Your task to perform on an android device: open device folders in google photos Image 0: 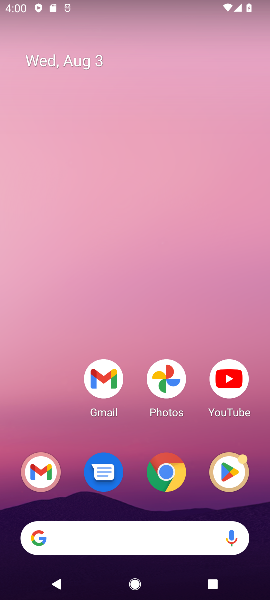
Step 0: drag from (38, 388) to (101, 10)
Your task to perform on an android device: open device folders in google photos Image 1: 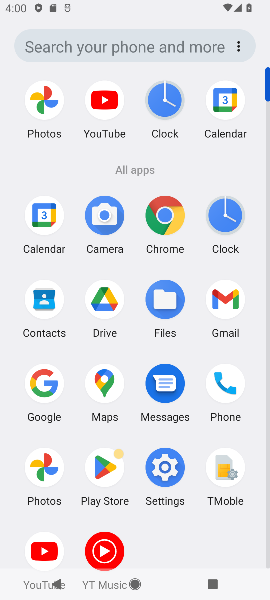
Step 1: click (35, 467)
Your task to perform on an android device: open device folders in google photos Image 2: 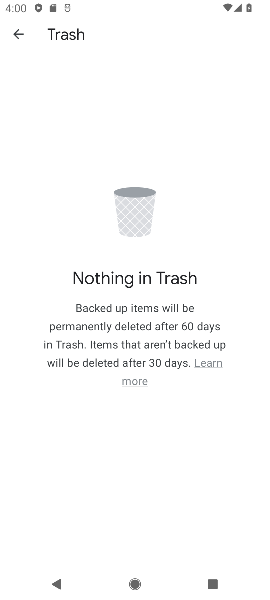
Step 2: click (14, 27)
Your task to perform on an android device: open device folders in google photos Image 3: 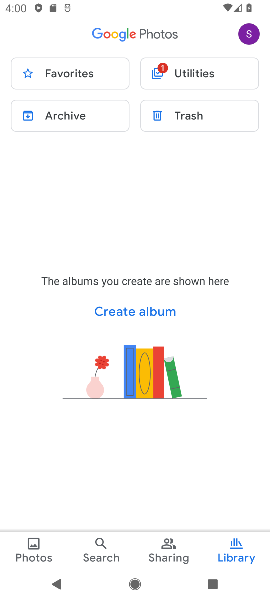
Step 3: click (241, 21)
Your task to perform on an android device: open device folders in google photos Image 4: 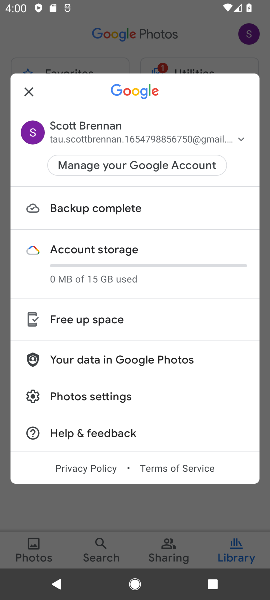
Step 4: click (192, 521)
Your task to perform on an android device: open device folders in google photos Image 5: 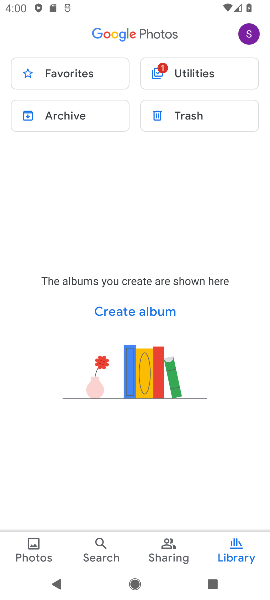
Step 5: click (27, 553)
Your task to perform on an android device: open device folders in google photos Image 6: 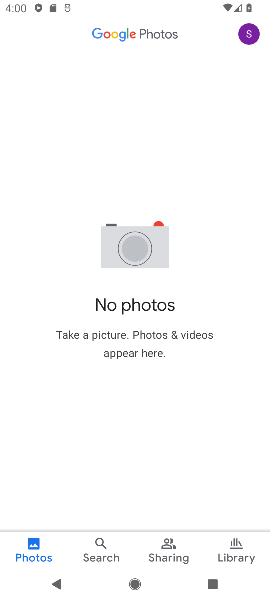
Step 6: click (107, 547)
Your task to perform on an android device: open device folders in google photos Image 7: 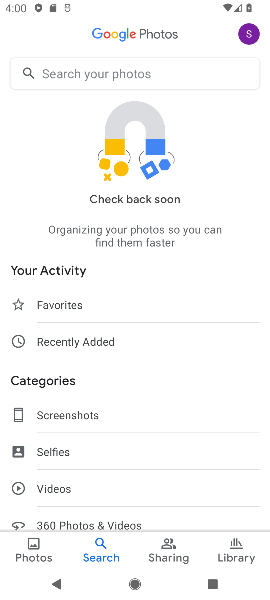
Step 7: click (173, 551)
Your task to perform on an android device: open device folders in google photos Image 8: 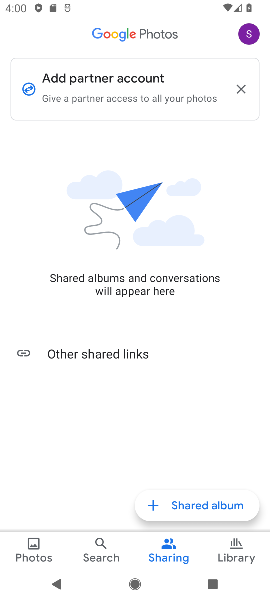
Step 8: click (247, 559)
Your task to perform on an android device: open device folders in google photos Image 9: 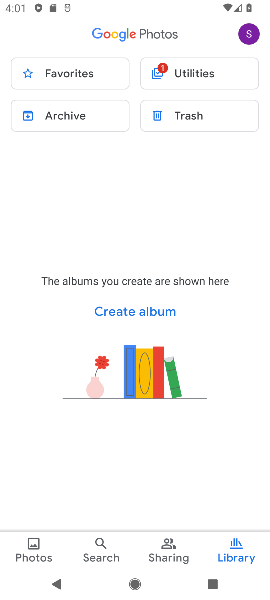
Step 9: click (191, 66)
Your task to perform on an android device: open device folders in google photos Image 10: 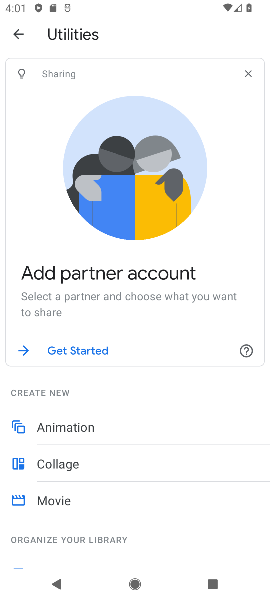
Step 10: drag from (163, 465) to (183, 117)
Your task to perform on an android device: open device folders in google photos Image 11: 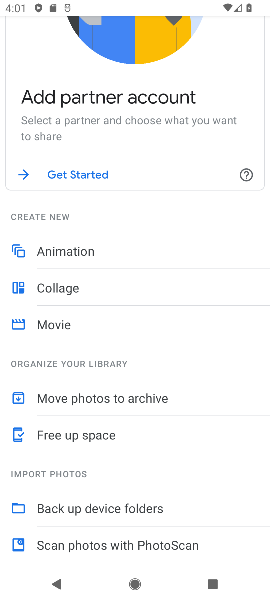
Step 11: click (146, 508)
Your task to perform on an android device: open device folders in google photos Image 12: 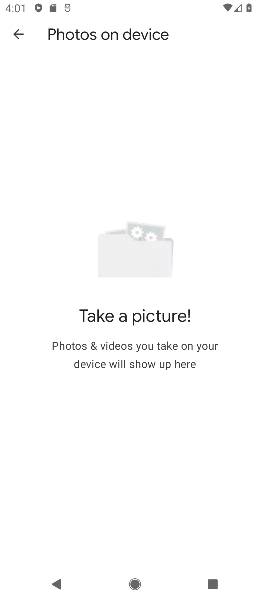
Step 12: task complete